Your task to perform on an android device: Go to Google maps Image 0: 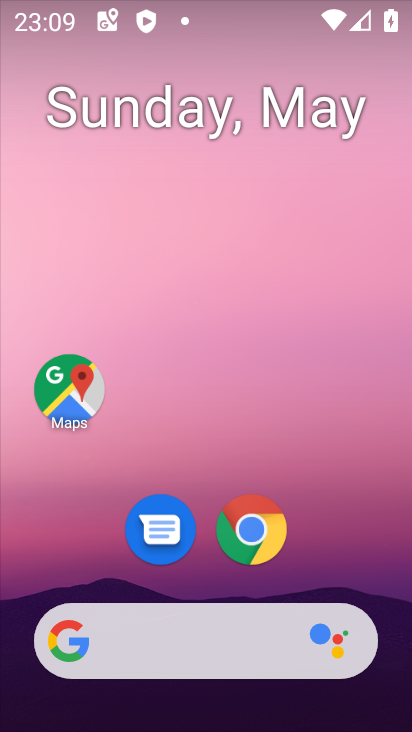
Step 0: drag from (387, 548) to (358, 5)
Your task to perform on an android device: Go to Google maps Image 1: 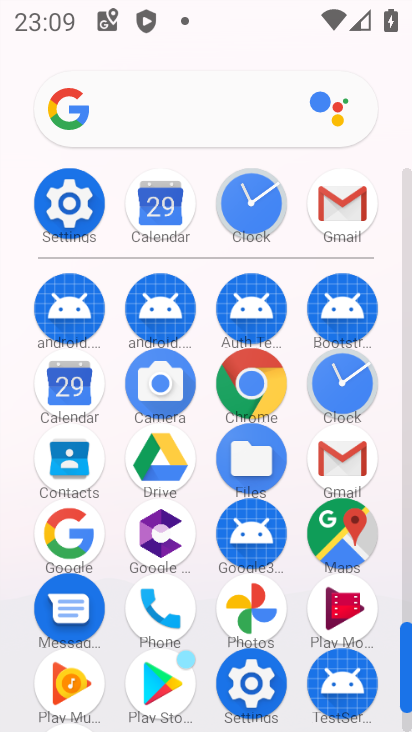
Step 1: click (357, 548)
Your task to perform on an android device: Go to Google maps Image 2: 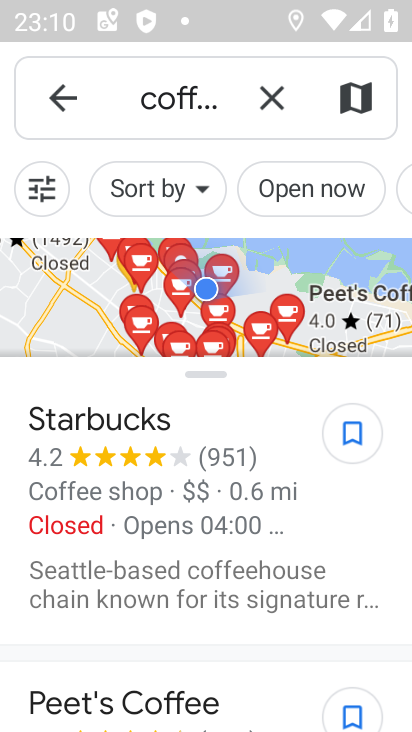
Step 2: task complete